Your task to perform on an android device: Show the shopping cart on newegg. Image 0: 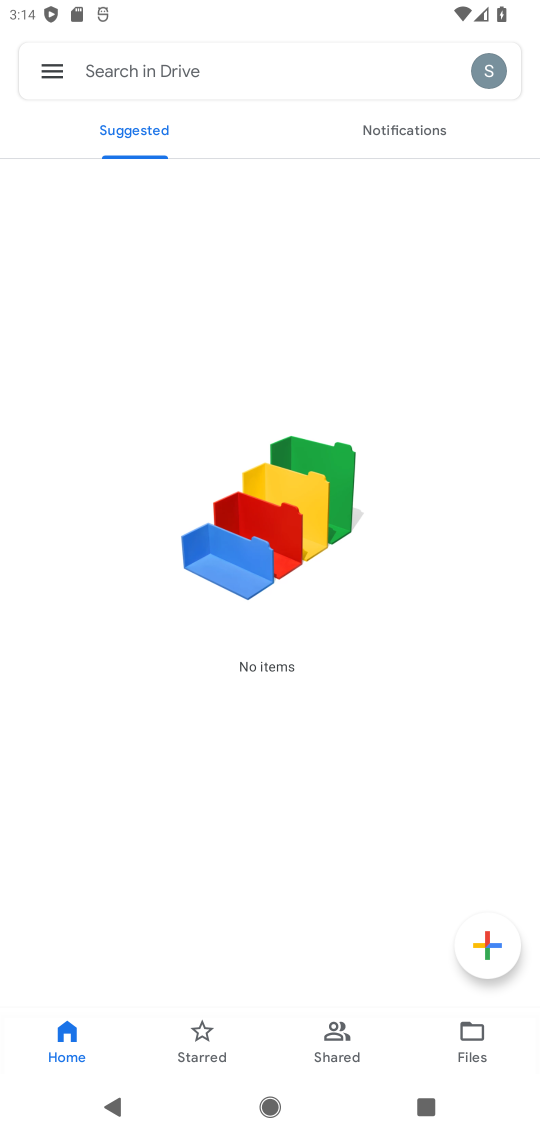
Step 0: press home button
Your task to perform on an android device: Show the shopping cart on newegg. Image 1: 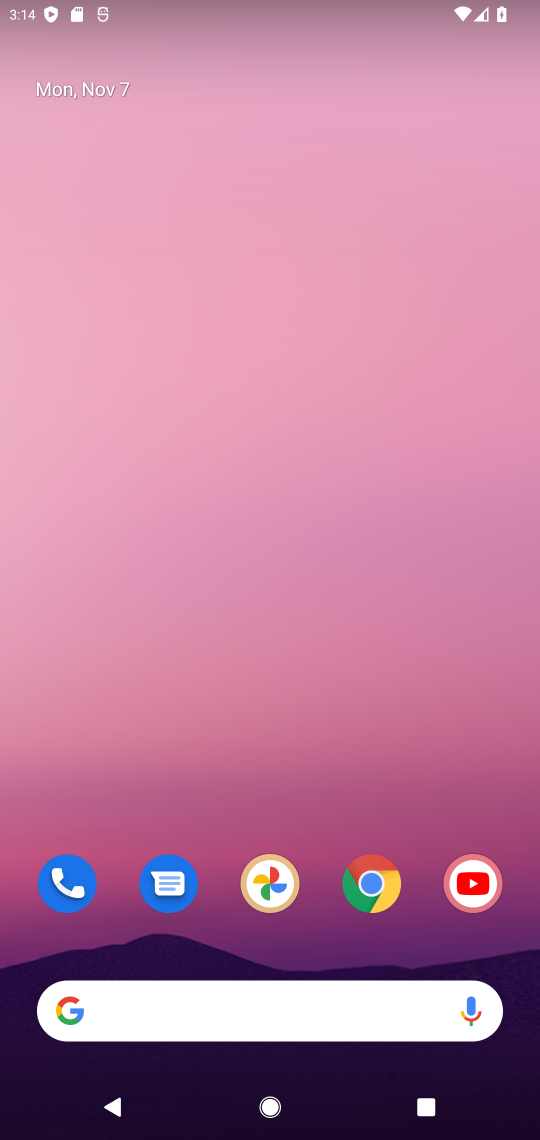
Step 1: click (373, 876)
Your task to perform on an android device: Show the shopping cart on newegg. Image 2: 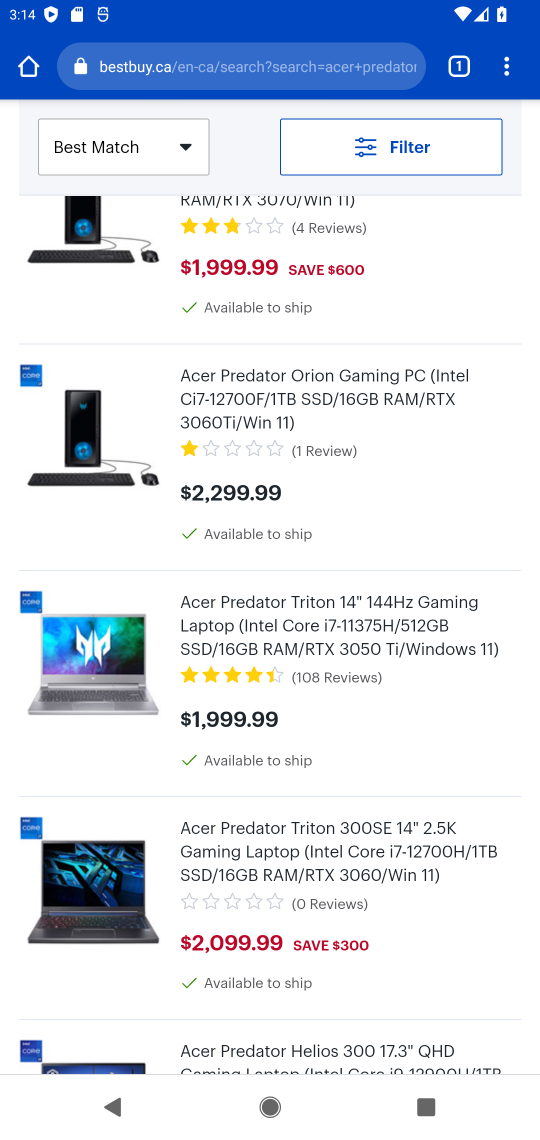
Step 2: click (267, 69)
Your task to perform on an android device: Show the shopping cart on newegg. Image 3: 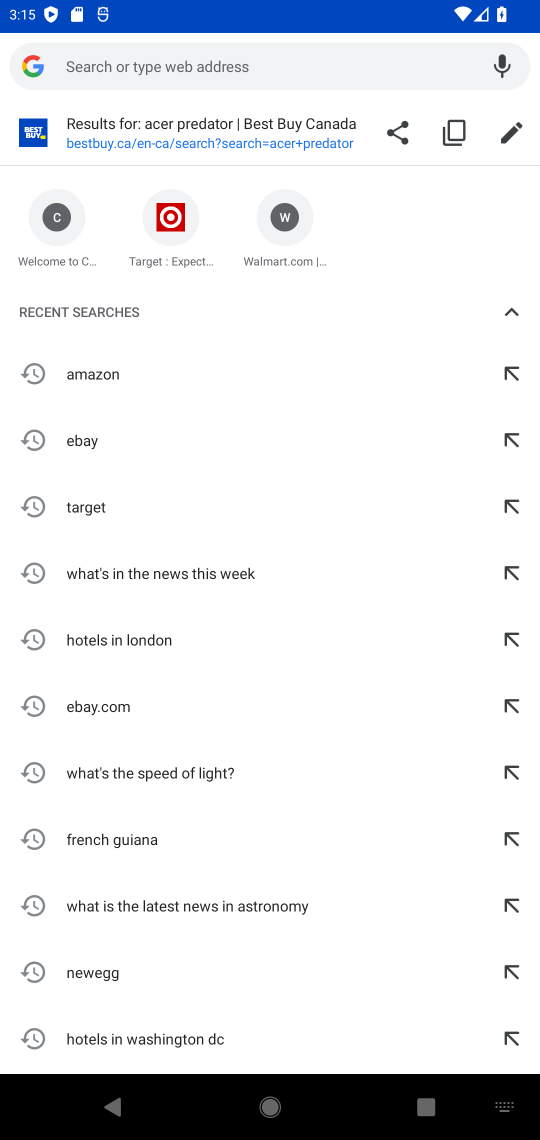
Step 3: type " newegg"
Your task to perform on an android device: Show the shopping cart on newegg. Image 4: 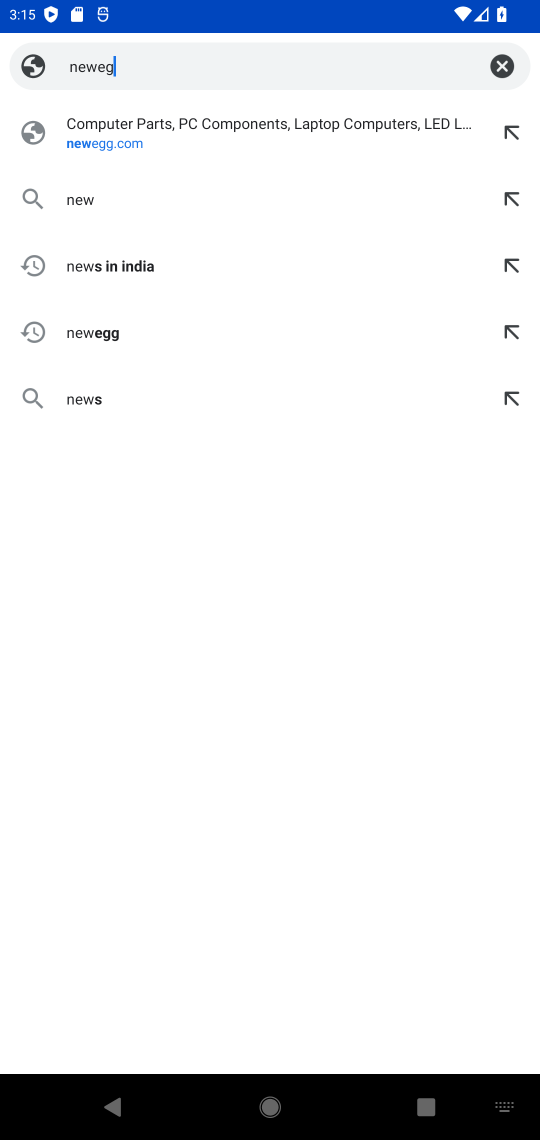
Step 4: press enter
Your task to perform on an android device: Show the shopping cart on newegg. Image 5: 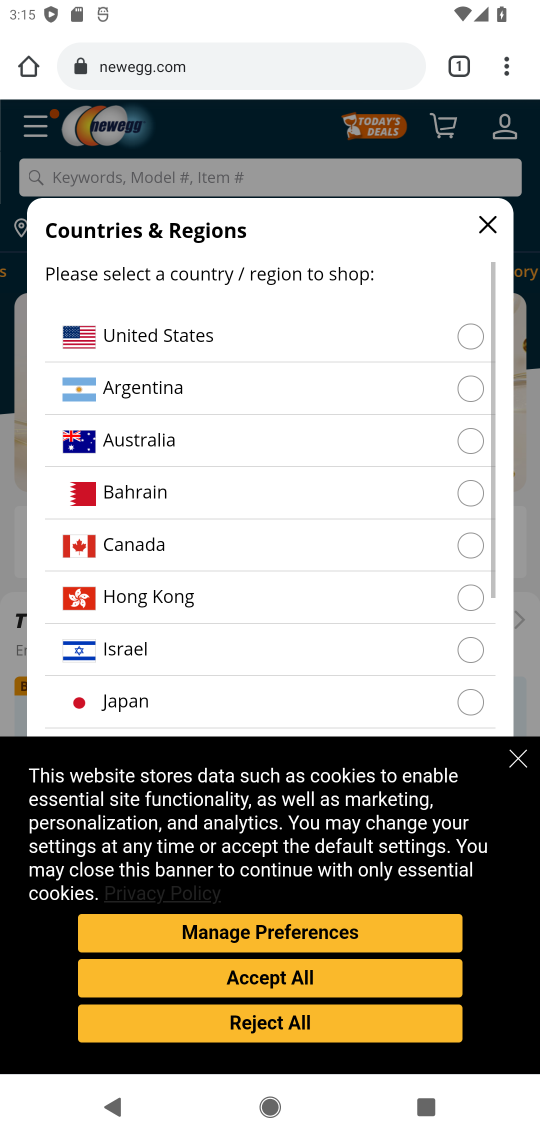
Step 5: click (489, 219)
Your task to perform on an android device: Show the shopping cart on newegg. Image 6: 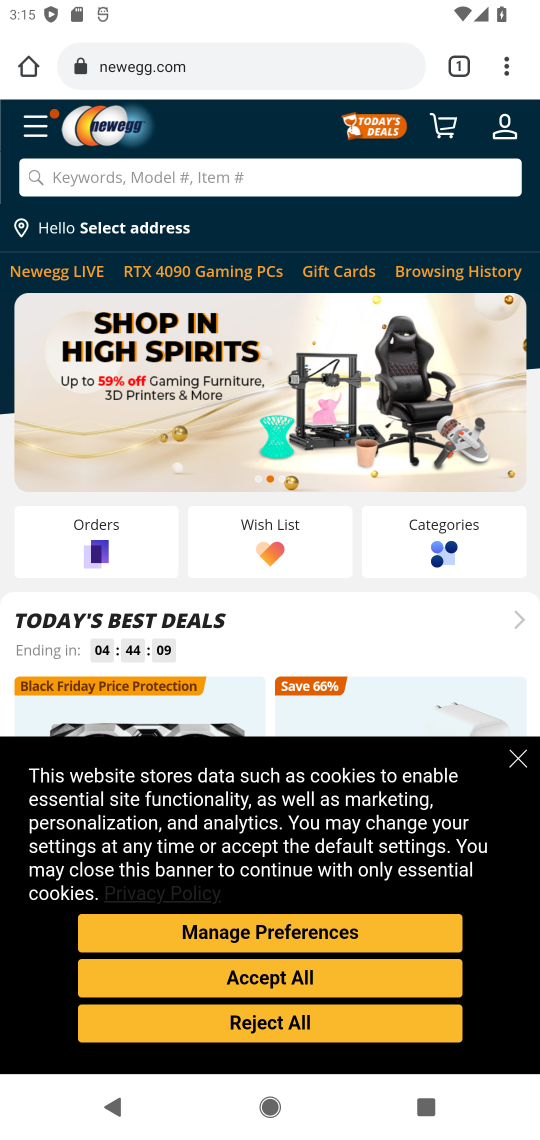
Step 6: click (515, 758)
Your task to perform on an android device: Show the shopping cart on newegg. Image 7: 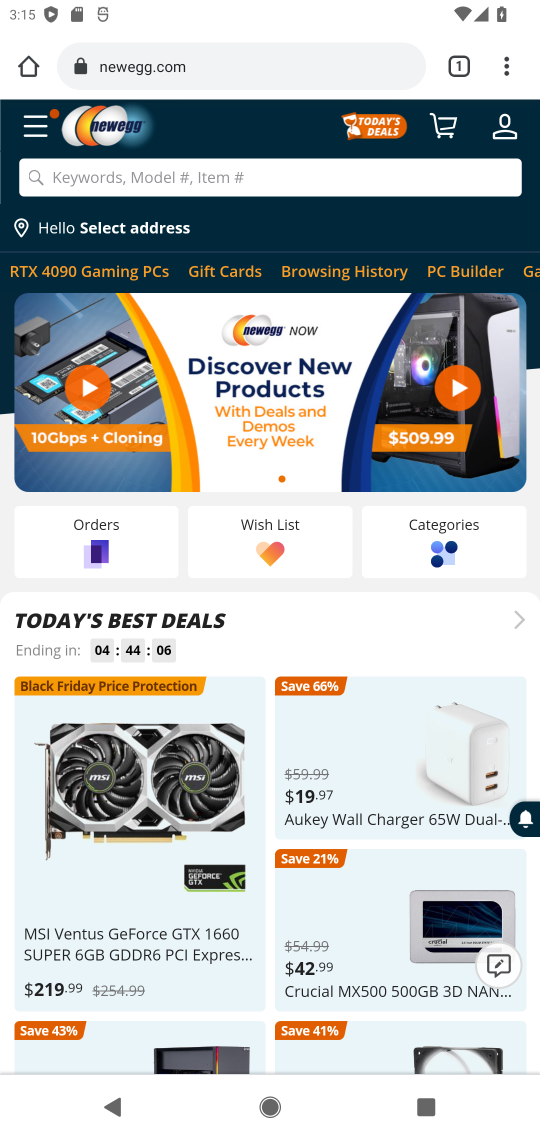
Step 7: click (443, 122)
Your task to perform on an android device: Show the shopping cart on newegg. Image 8: 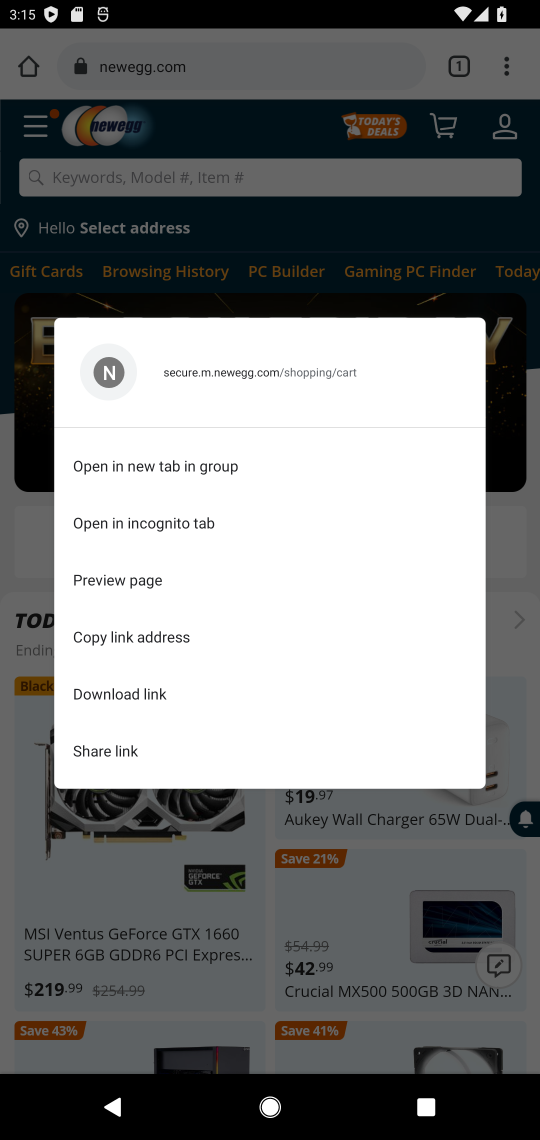
Step 8: click (447, 120)
Your task to perform on an android device: Show the shopping cart on newegg. Image 9: 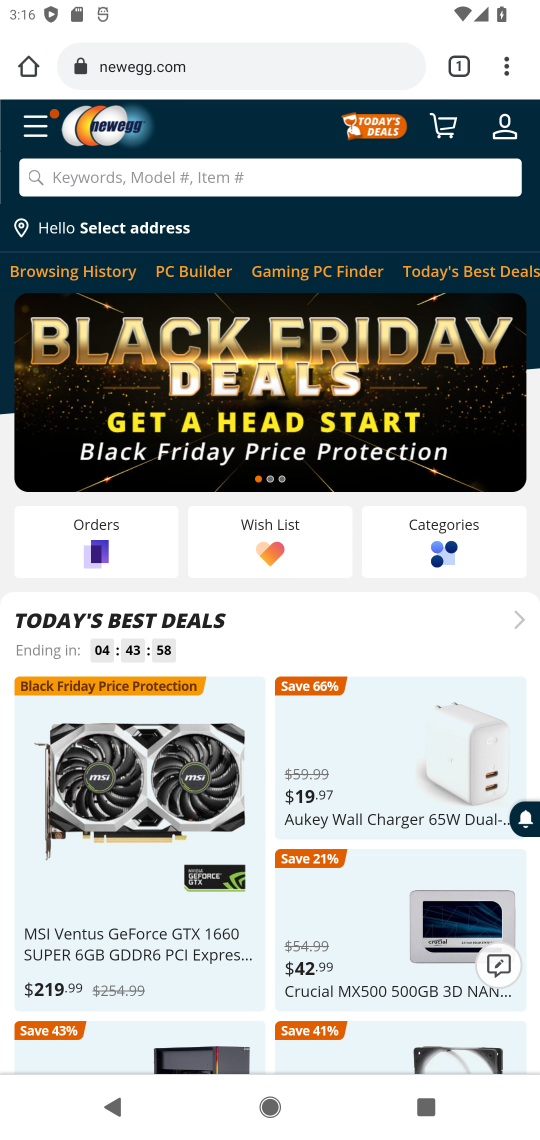
Step 9: click (444, 132)
Your task to perform on an android device: Show the shopping cart on newegg. Image 10: 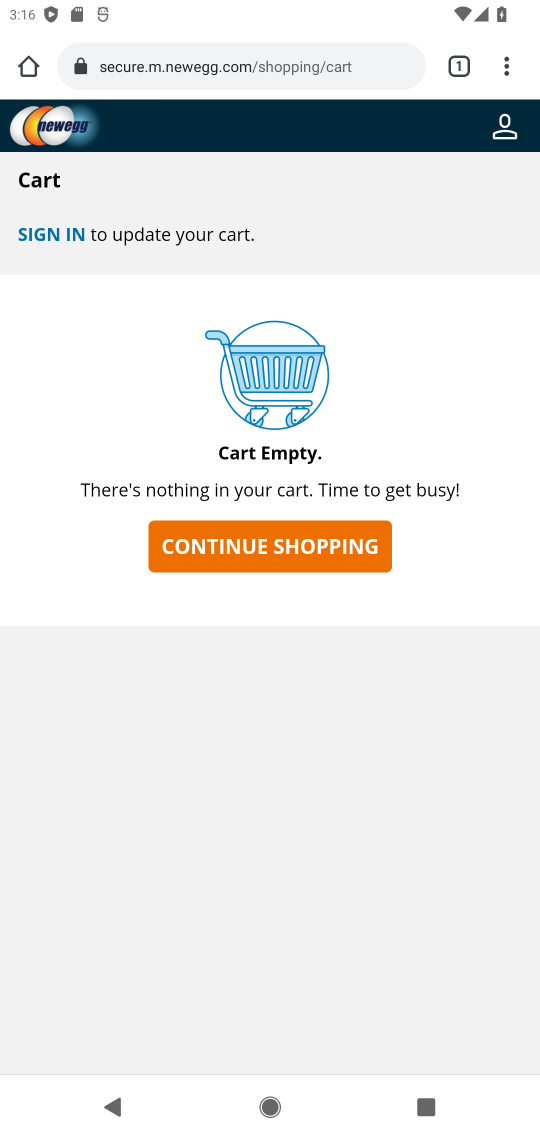
Step 10: task complete